Your task to perform on an android device: Do I have any events today? Image 0: 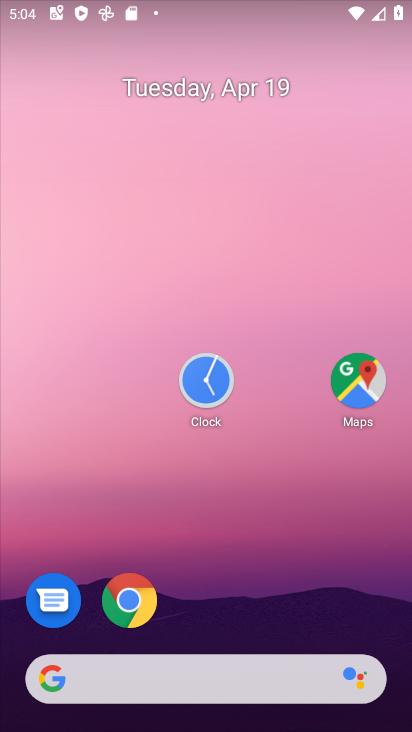
Step 0: drag from (216, 667) to (154, 185)
Your task to perform on an android device: Do I have any events today? Image 1: 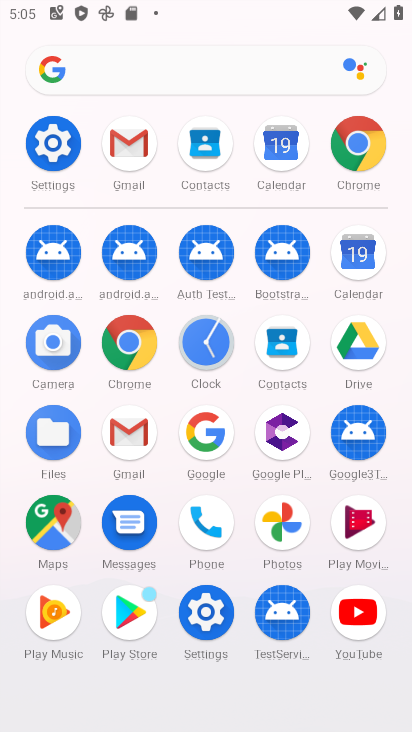
Step 1: click (351, 249)
Your task to perform on an android device: Do I have any events today? Image 2: 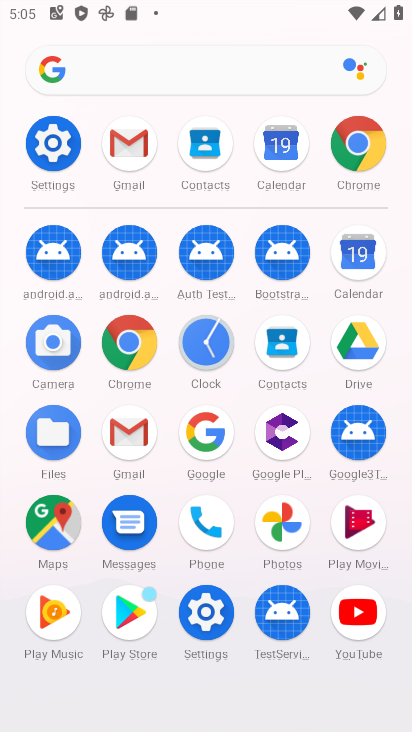
Step 2: click (351, 249)
Your task to perform on an android device: Do I have any events today? Image 3: 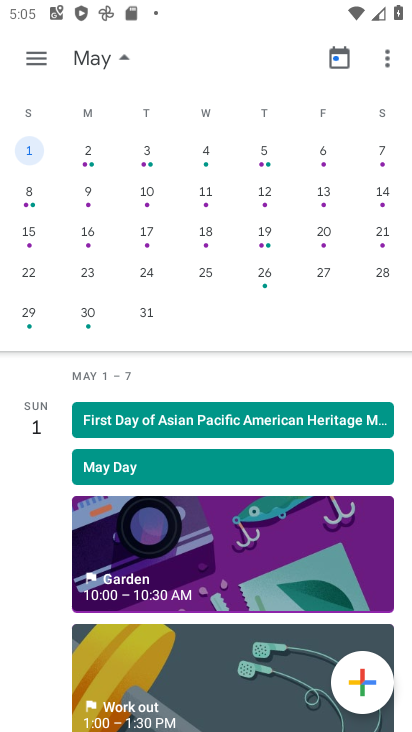
Step 3: task complete